Your task to perform on an android device: Open maps Image 0: 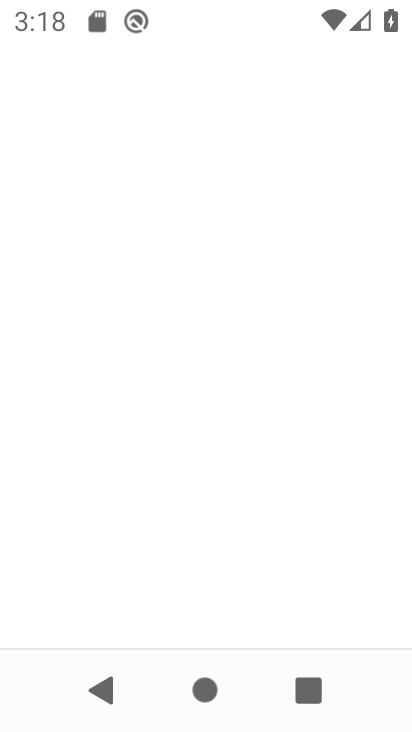
Step 0: press home button
Your task to perform on an android device: Open maps Image 1: 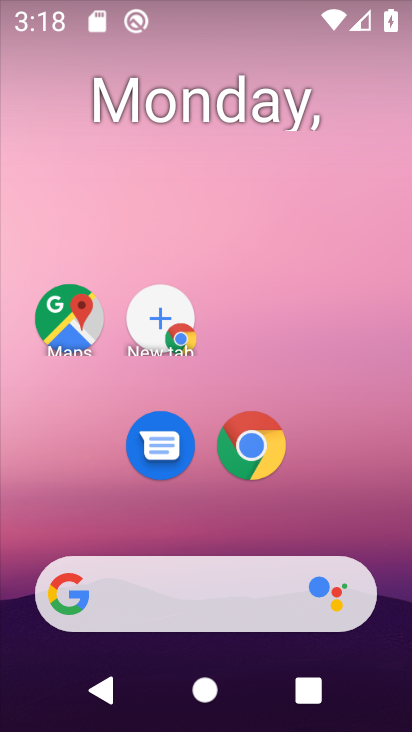
Step 1: click (68, 310)
Your task to perform on an android device: Open maps Image 2: 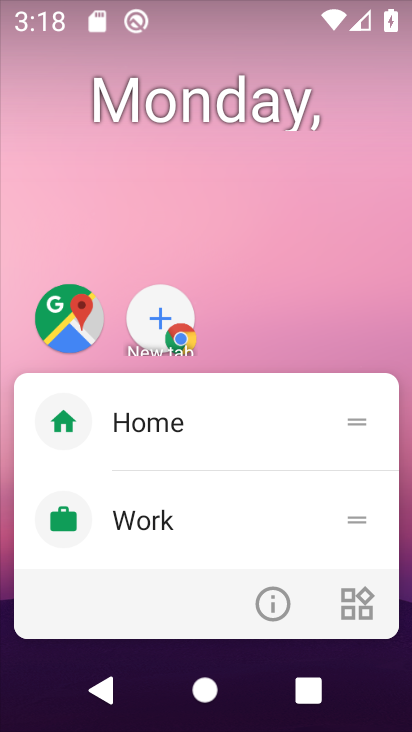
Step 2: click (70, 317)
Your task to perform on an android device: Open maps Image 3: 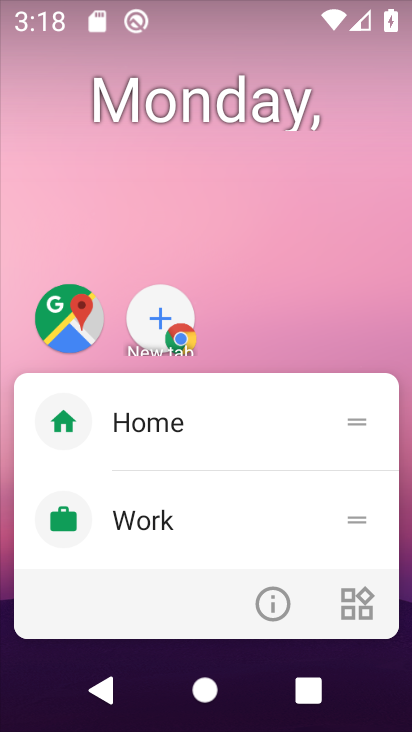
Step 3: click (70, 317)
Your task to perform on an android device: Open maps Image 4: 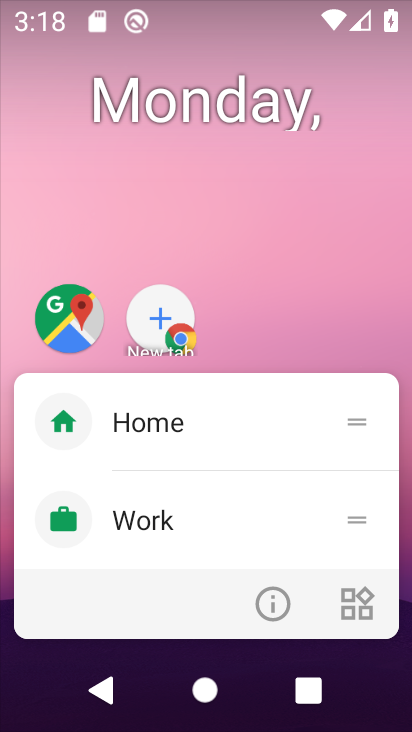
Step 4: click (70, 317)
Your task to perform on an android device: Open maps Image 5: 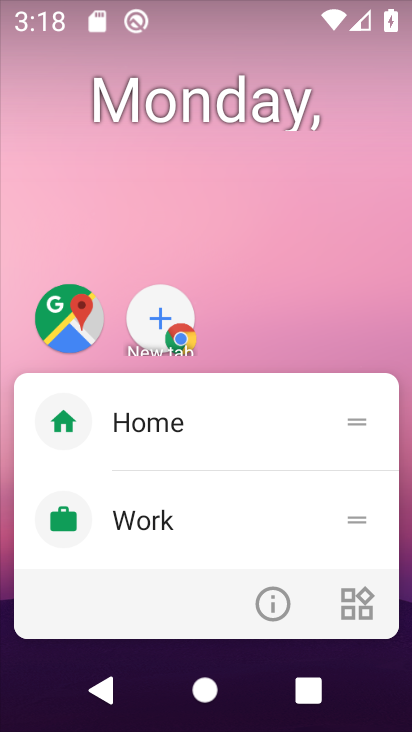
Step 5: click (70, 317)
Your task to perform on an android device: Open maps Image 6: 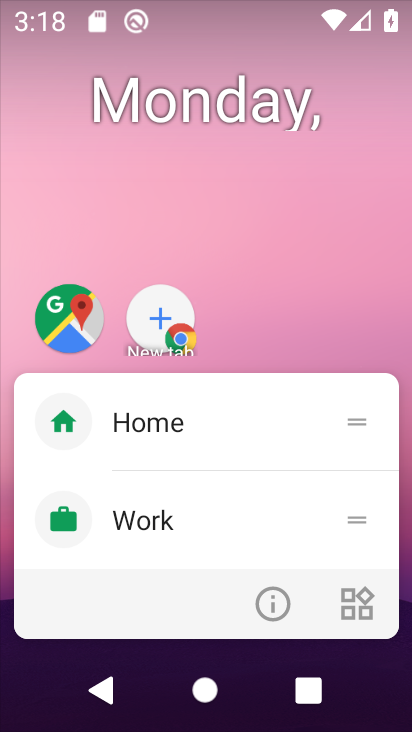
Step 6: click (70, 317)
Your task to perform on an android device: Open maps Image 7: 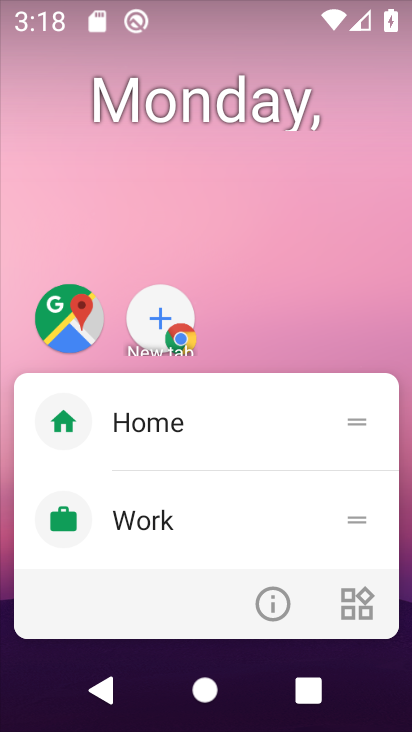
Step 7: click (70, 317)
Your task to perform on an android device: Open maps Image 8: 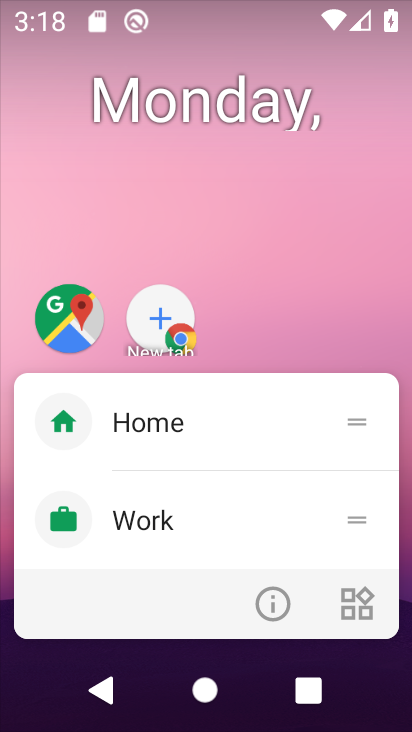
Step 8: click (265, 278)
Your task to perform on an android device: Open maps Image 9: 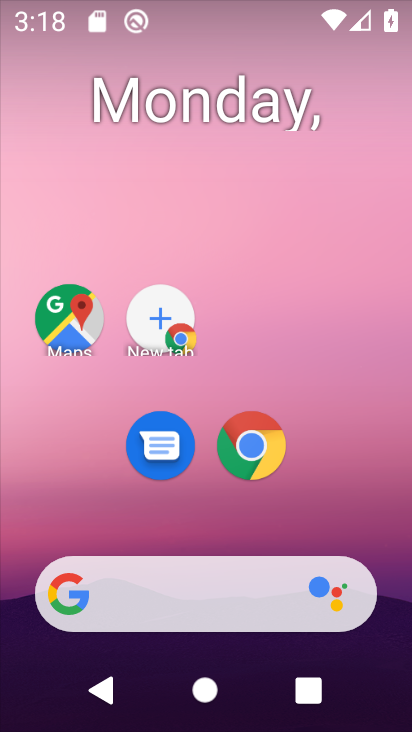
Step 9: click (71, 314)
Your task to perform on an android device: Open maps Image 10: 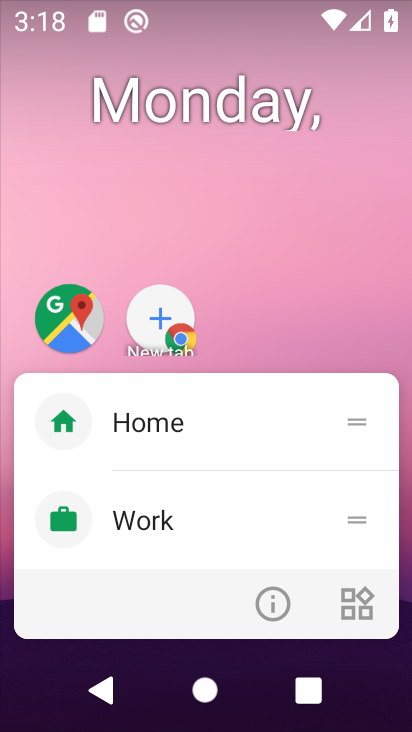
Step 10: click (292, 254)
Your task to perform on an android device: Open maps Image 11: 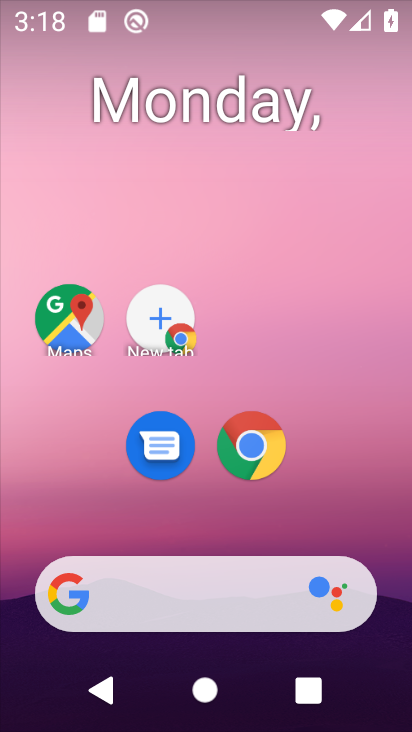
Step 11: click (71, 317)
Your task to perform on an android device: Open maps Image 12: 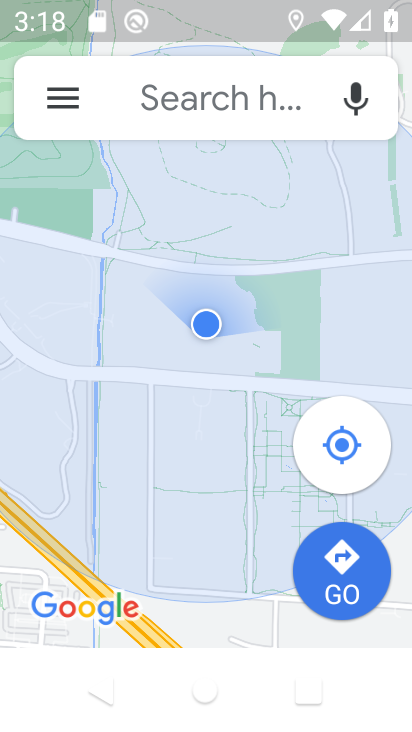
Step 12: click (54, 98)
Your task to perform on an android device: Open maps Image 13: 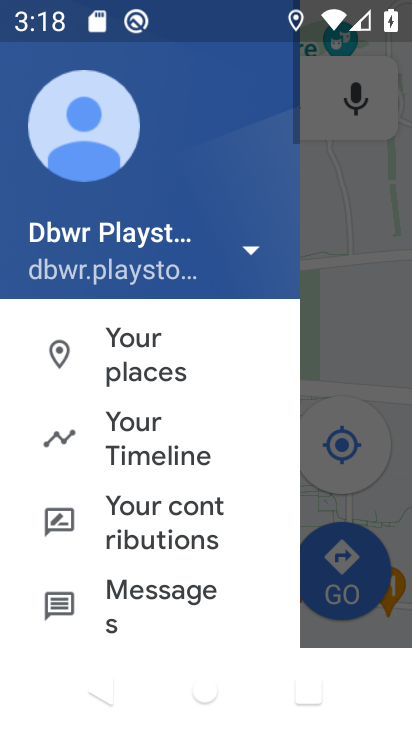
Step 13: task complete